Your task to perform on an android device: allow cookies in the chrome app Image 0: 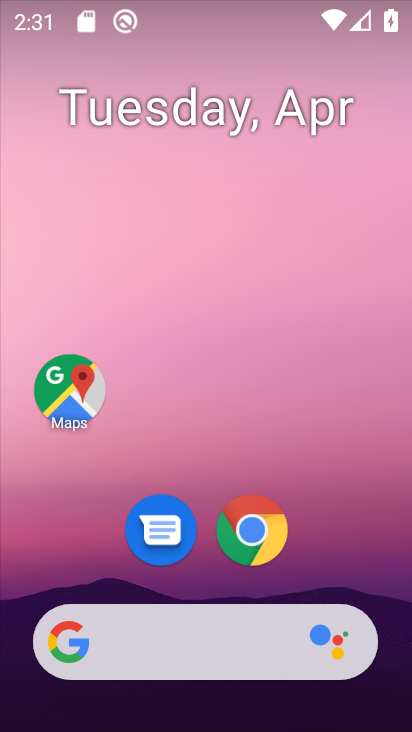
Step 0: click (252, 527)
Your task to perform on an android device: allow cookies in the chrome app Image 1: 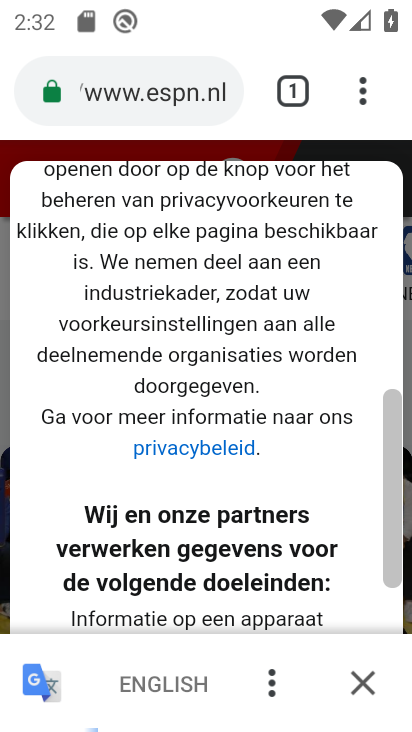
Step 1: click (360, 97)
Your task to perform on an android device: allow cookies in the chrome app Image 2: 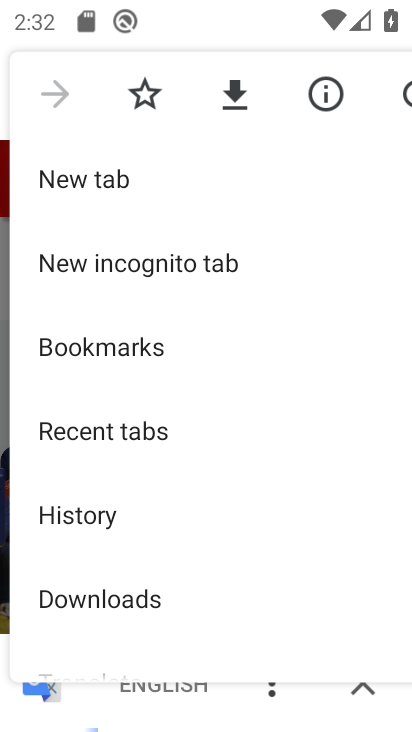
Step 2: drag from (148, 623) to (171, 199)
Your task to perform on an android device: allow cookies in the chrome app Image 3: 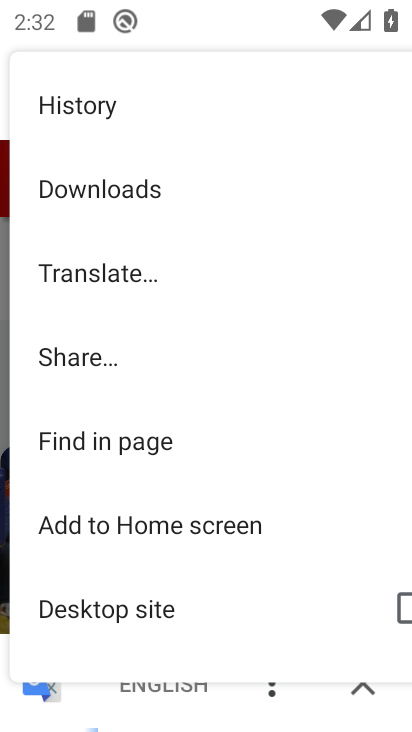
Step 3: drag from (220, 588) to (222, 173)
Your task to perform on an android device: allow cookies in the chrome app Image 4: 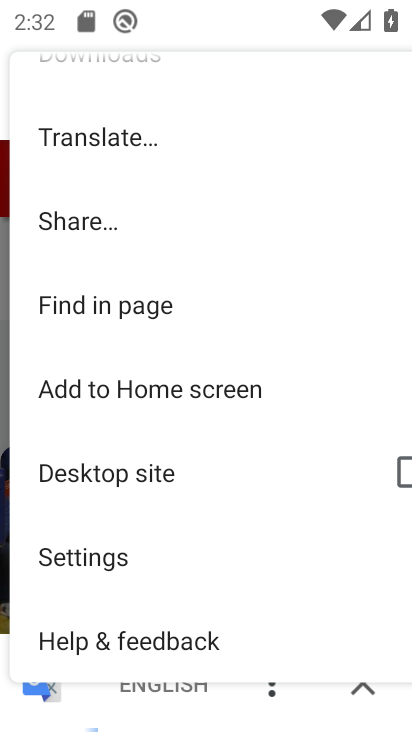
Step 4: click (79, 557)
Your task to perform on an android device: allow cookies in the chrome app Image 5: 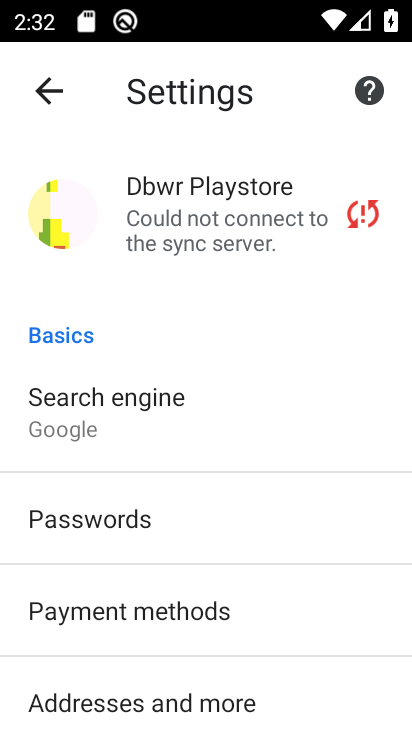
Step 5: drag from (142, 653) to (192, 162)
Your task to perform on an android device: allow cookies in the chrome app Image 6: 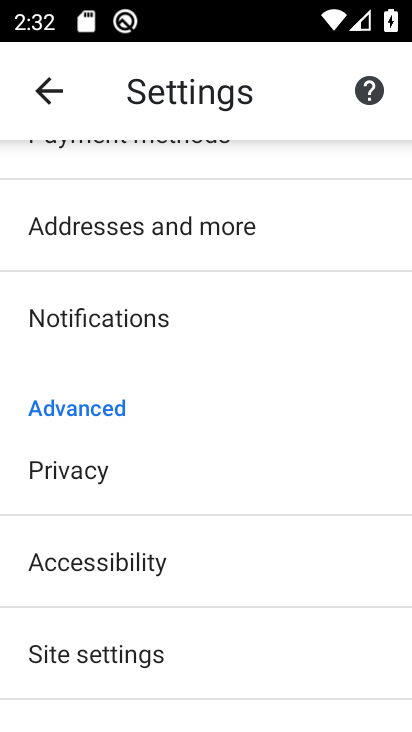
Step 6: click (100, 647)
Your task to perform on an android device: allow cookies in the chrome app Image 7: 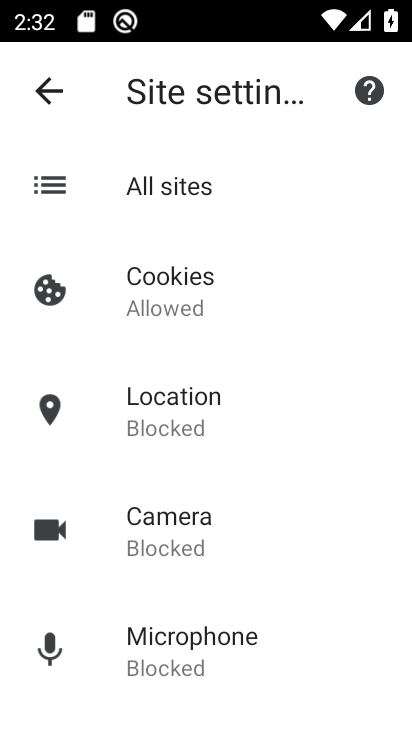
Step 7: click (171, 297)
Your task to perform on an android device: allow cookies in the chrome app Image 8: 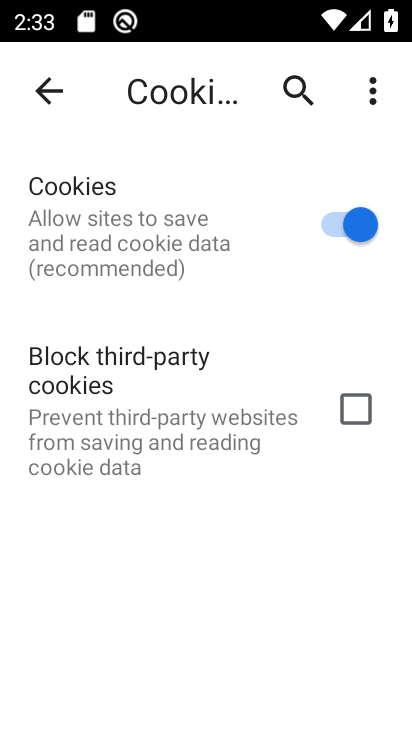
Step 8: task complete